Your task to perform on an android device: turn off priority inbox in the gmail app Image 0: 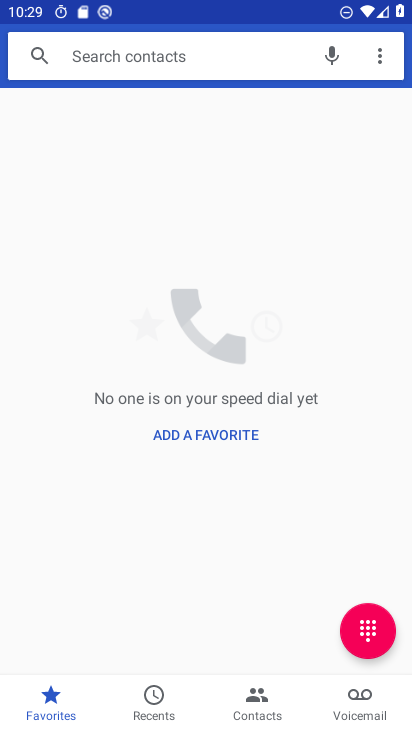
Step 0: press home button
Your task to perform on an android device: turn off priority inbox in the gmail app Image 1: 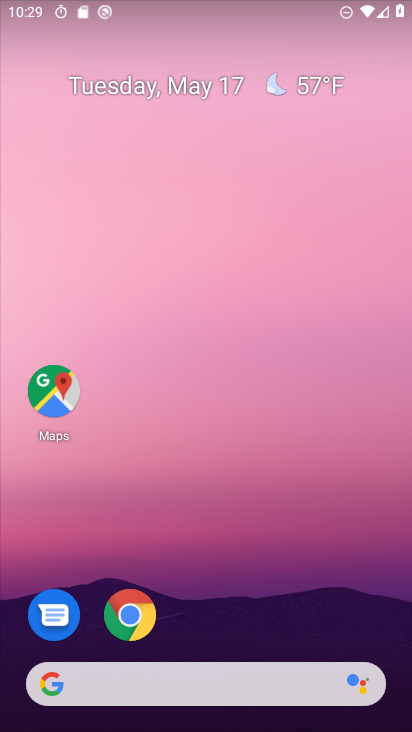
Step 1: drag from (234, 463) to (177, 41)
Your task to perform on an android device: turn off priority inbox in the gmail app Image 2: 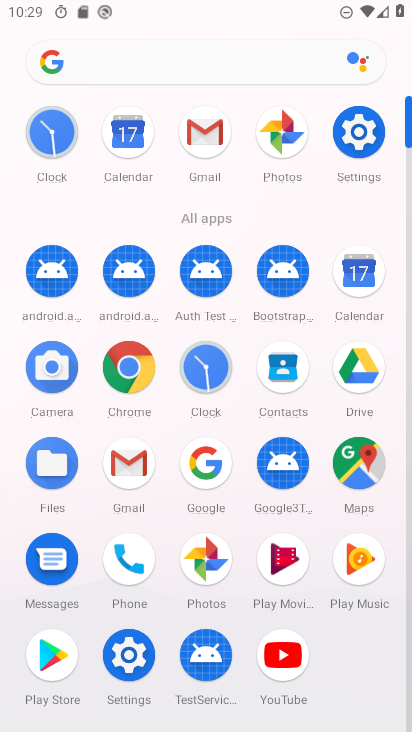
Step 2: click (210, 128)
Your task to perform on an android device: turn off priority inbox in the gmail app Image 3: 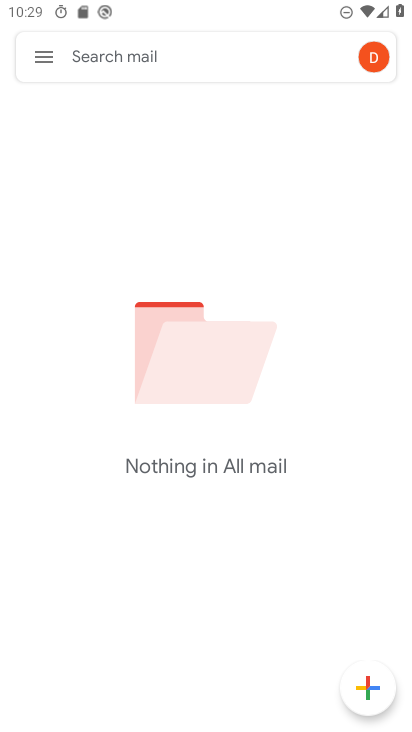
Step 3: click (52, 52)
Your task to perform on an android device: turn off priority inbox in the gmail app Image 4: 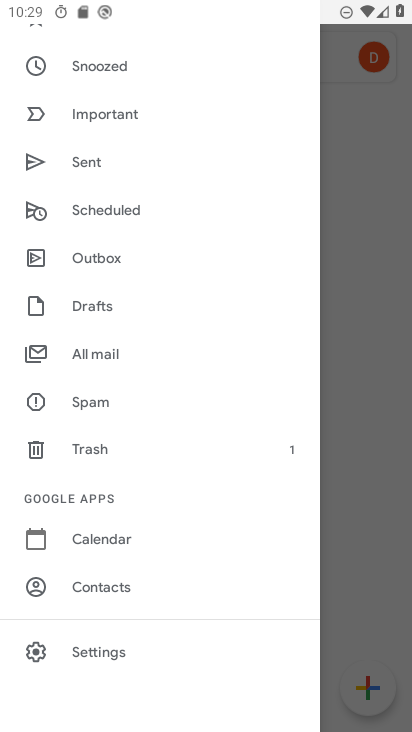
Step 4: click (122, 644)
Your task to perform on an android device: turn off priority inbox in the gmail app Image 5: 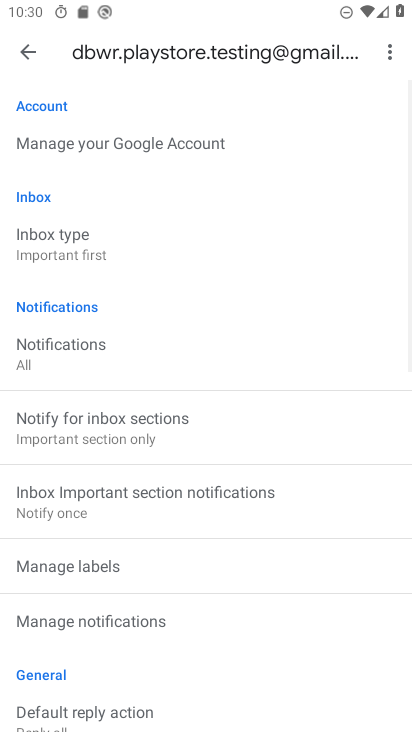
Step 5: click (124, 252)
Your task to perform on an android device: turn off priority inbox in the gmail app Image 6: 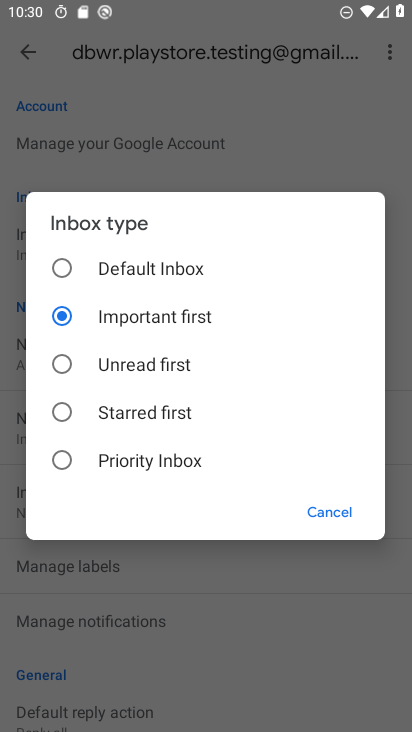
Step 6: task complete